Your task to perform on an android device: toggle data saver in the chrome app Image 0: 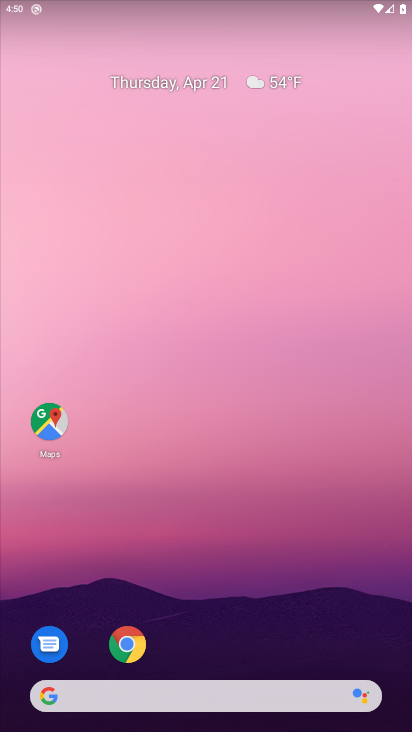
Step 0: click (126, 645)
Your task to perform on an android device: toggle data saver in the chrome app Image 1: 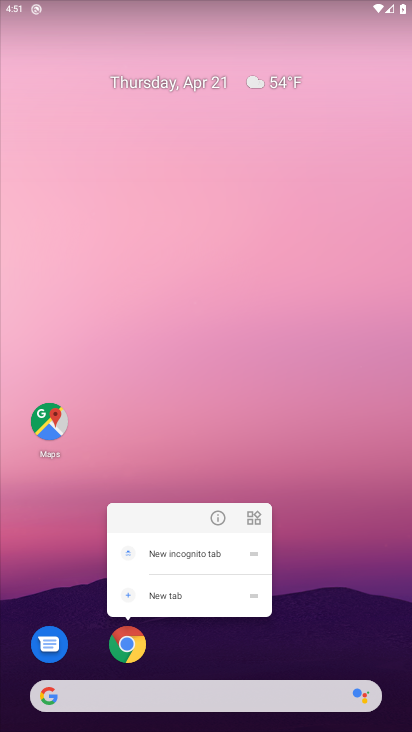
Step 1: click (126, 645)
Your task to perform on an android device: toggle data saver in the chrome app Image 2: 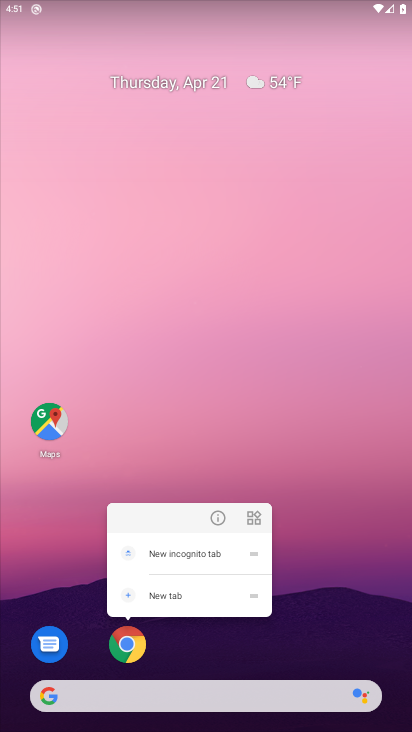
Step 2: click (126, 645)
Your task to perform on an android device: toggle data saver in the chrome app Image 3: 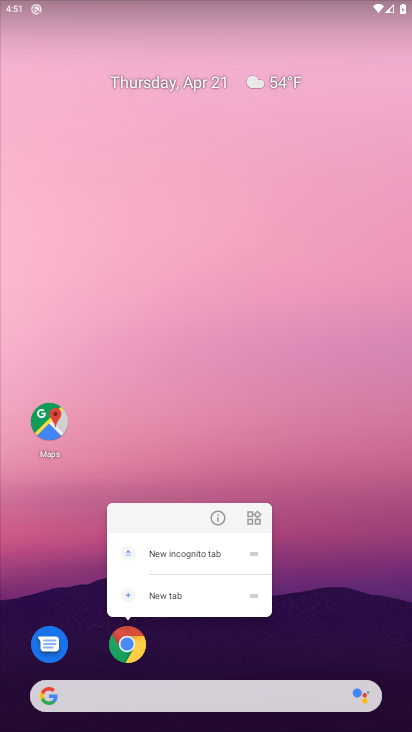
Step 3: click (126, 645)
Your task to perform on an android device: toggle data saver in the chrome app Image 4: 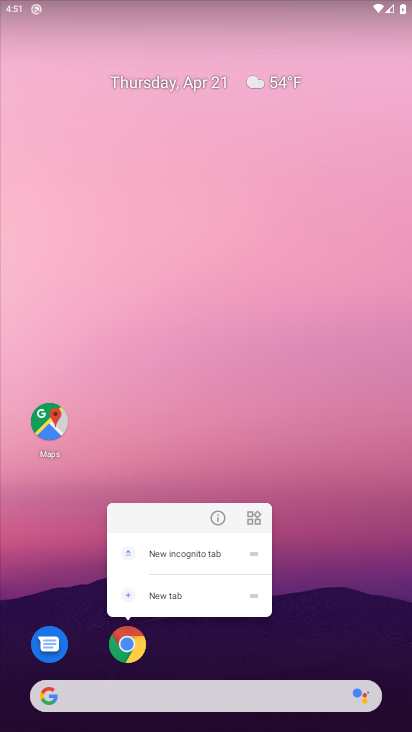
Step 4: click (126, 645)
Your task to perform on an android device: toggle data saver in the chrome app Image 5: 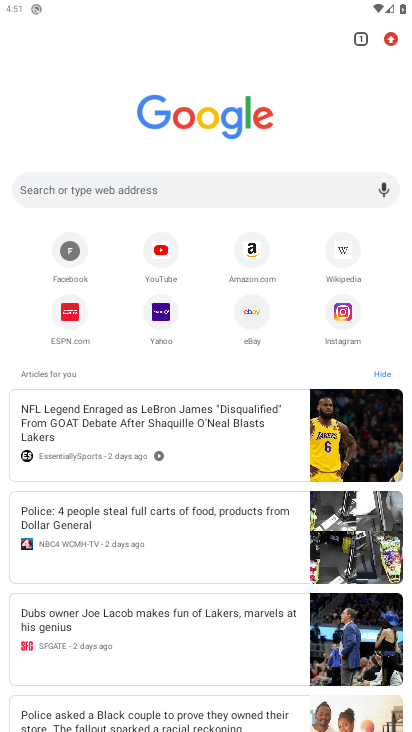
Step 5: click (391, 41)
Your task to perform on an android device: toggle data saver in the chrome app Image 6: 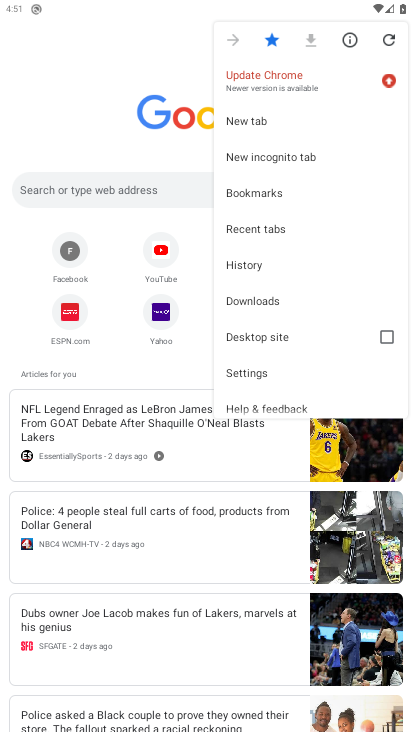
Step 6: click (247, 371)
Your task to perform on an android device: toggle data saver in the chrome app Image 7: 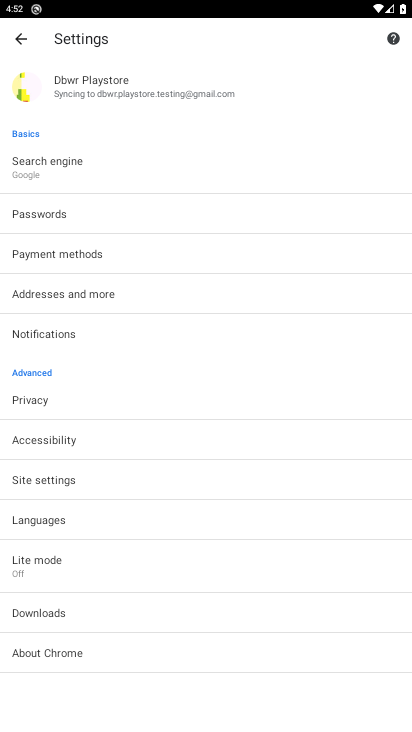
Step 7: click (39, 563)
Your task to perform on an android device: toggle data saver in the chrome app Image 8: 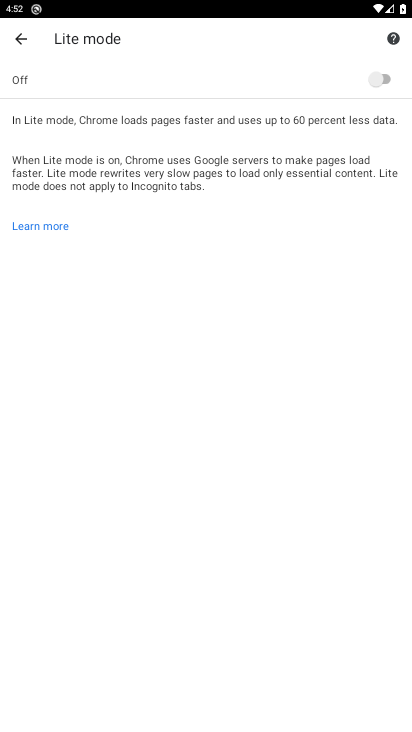
Step 8: click (386, 77)
Your task to perform on an android device: toggle data saver in the chrome app Image 9: 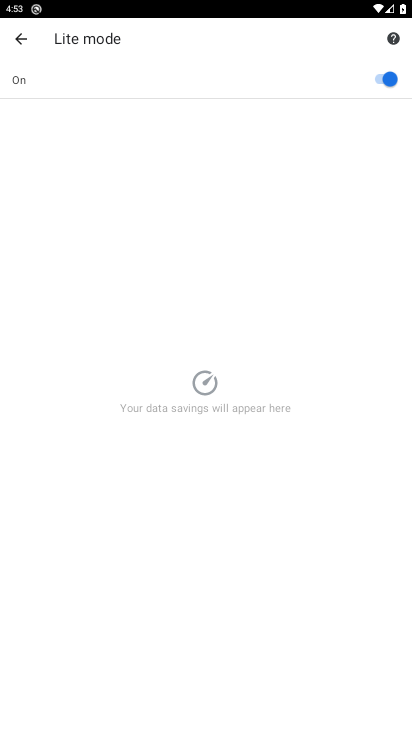
Step 9: task complete